Your task to perform on an android device: turn off location history Image 0: 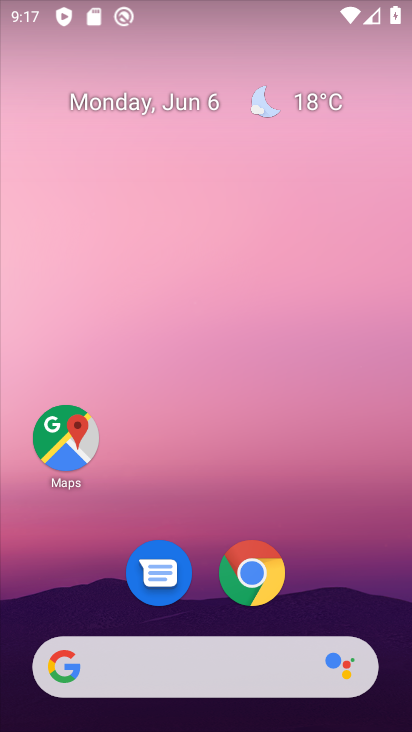
Step 0: click (60, 433)
Your task to perform on an android device: turn off location history Image 1: 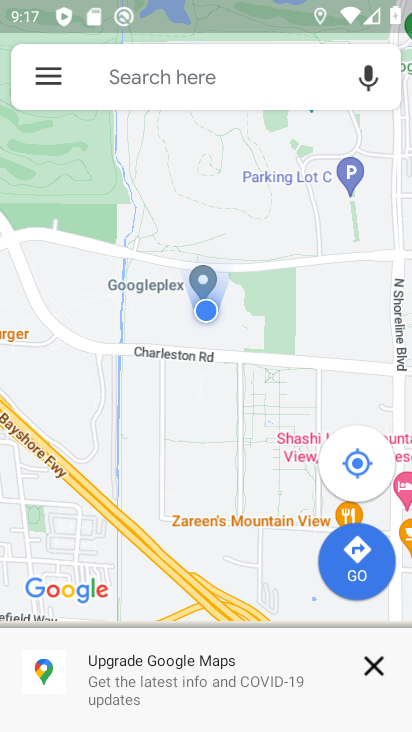
Step 1: click (34, 77)
Your task to perform on an android device: turn off location history Image 2: 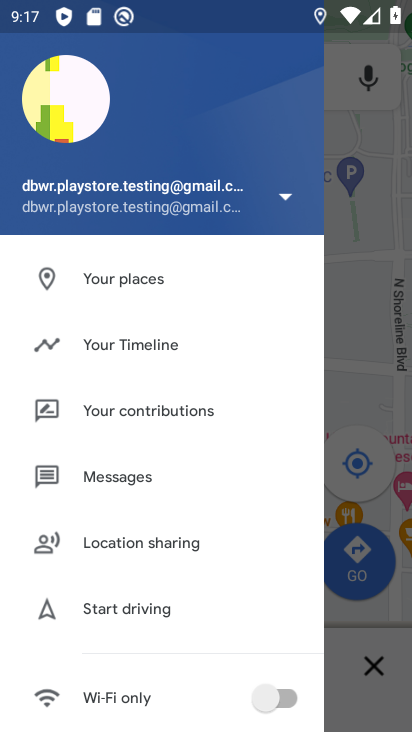
Step 2: click (121, 345)
Your task to perform on an android device: turn off location history Image 3: 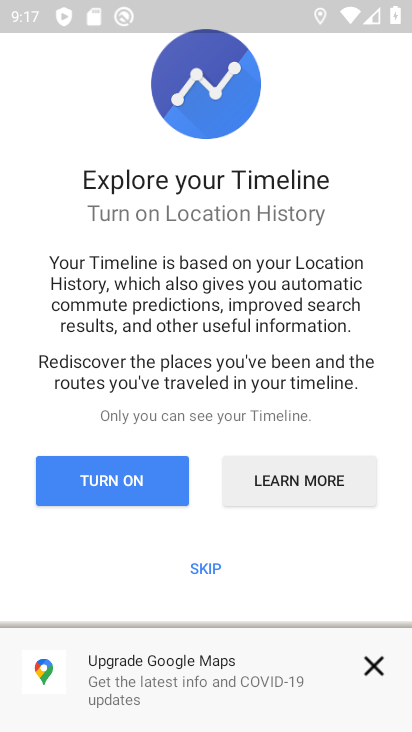
Step 3: click (204, 569)
Your task to perform on an android device: turn off location history Image 4: 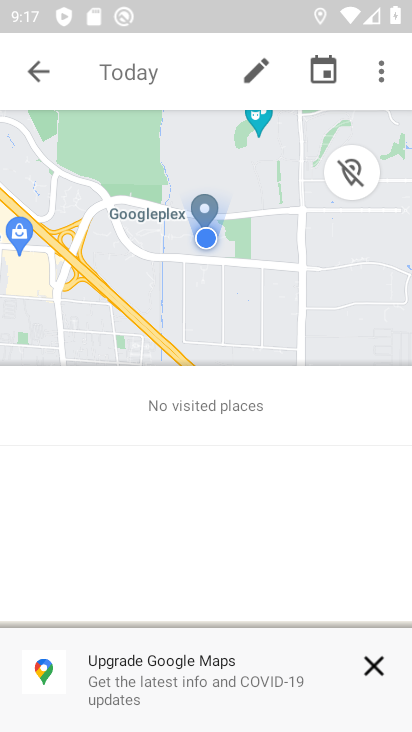
Step 4: click (381, 665)
Your task to perform on an android device: turn off location history Image 5: 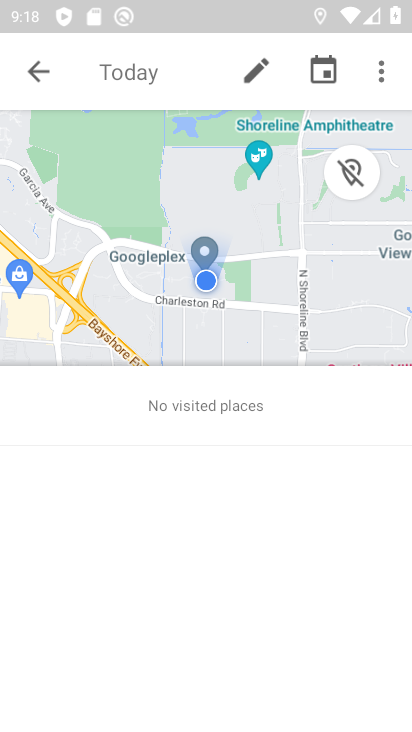
Step 5: click (380, 70)
Your task to perform on an android device: turn off location history Image 6: 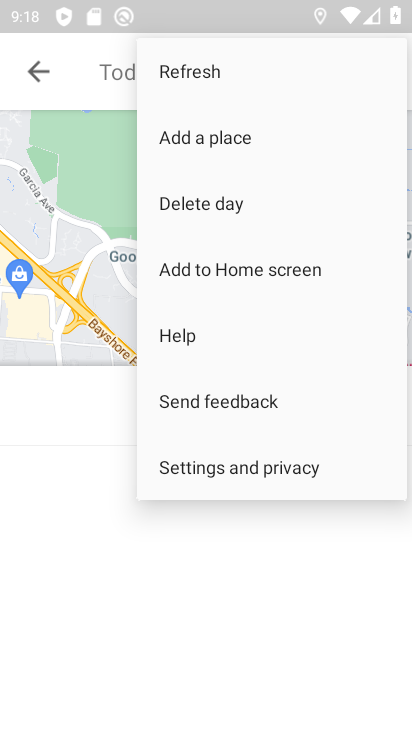
Step 6: click (285, 458)
Your task to perform on an android device: turn off location history Image 7: 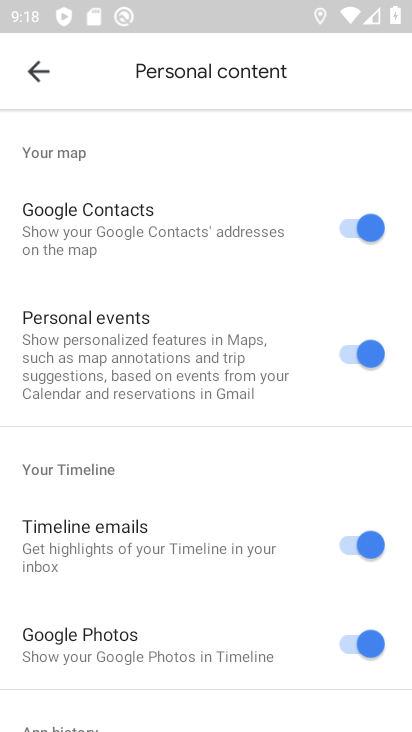
Step 7: task complete